Your task to perform on an android device: Open display settings Image 0: 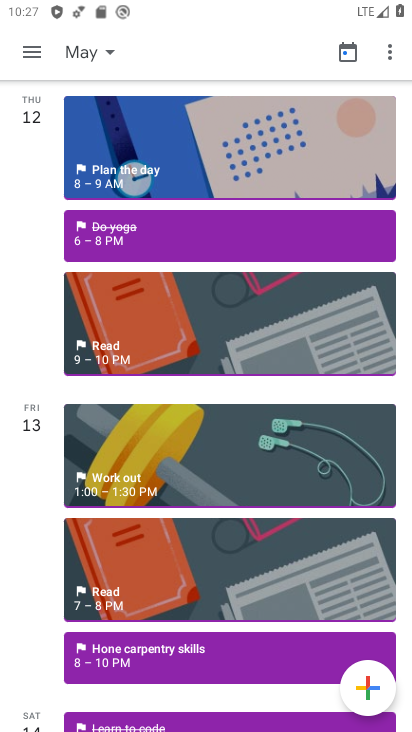
Step 0: press home button
Your task to perform on an android device: Open display settings Image 1: 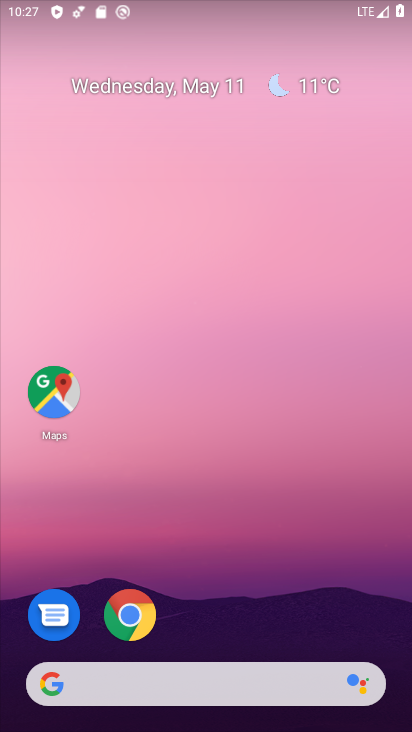
Step 1: drag from (263, 561) to (283, 49)
Your task to perform on an android device: Open display settings Image 2: 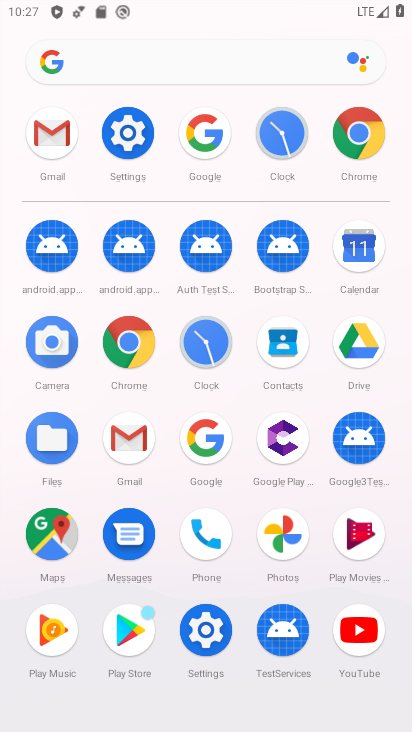
Step 2: click (136, 123)
Your task to perform on an android device: Open display settings Image 3: 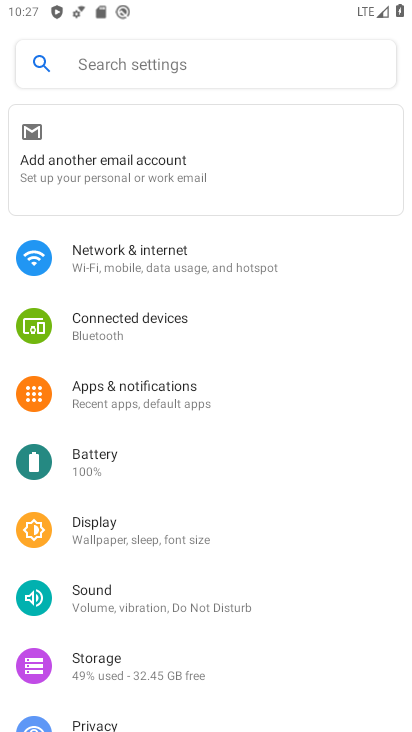
Step 3: click (134, 526)
Your task to perform on an android device: Open display settings Image 4: 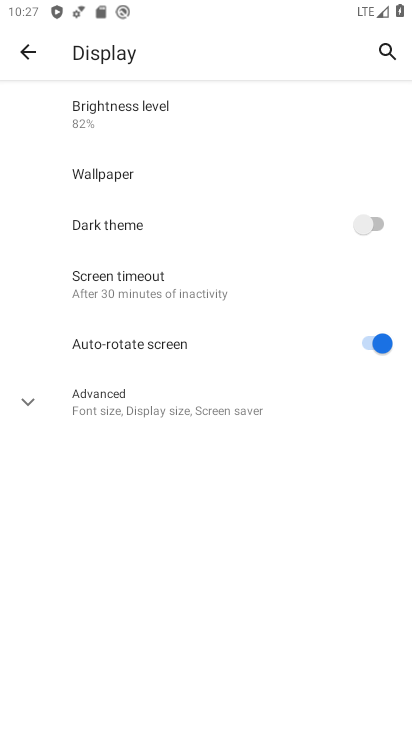
Step 4: task complete